Your task to perform on an android device: turn off notifications settings in the gmail app Image 0: 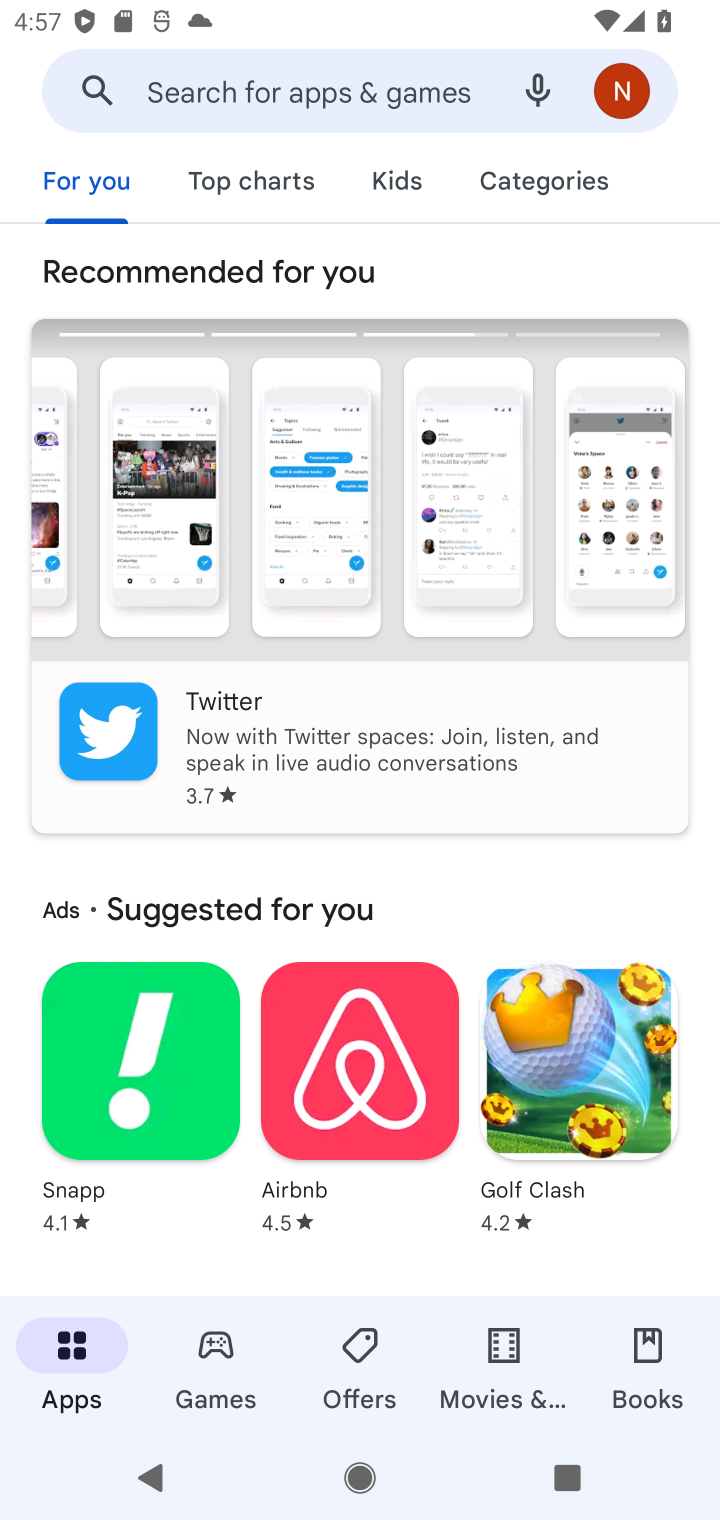
Step 0: press home button
Your task to perform on an android device: turn off notifications settings in the gmail app Image 1: 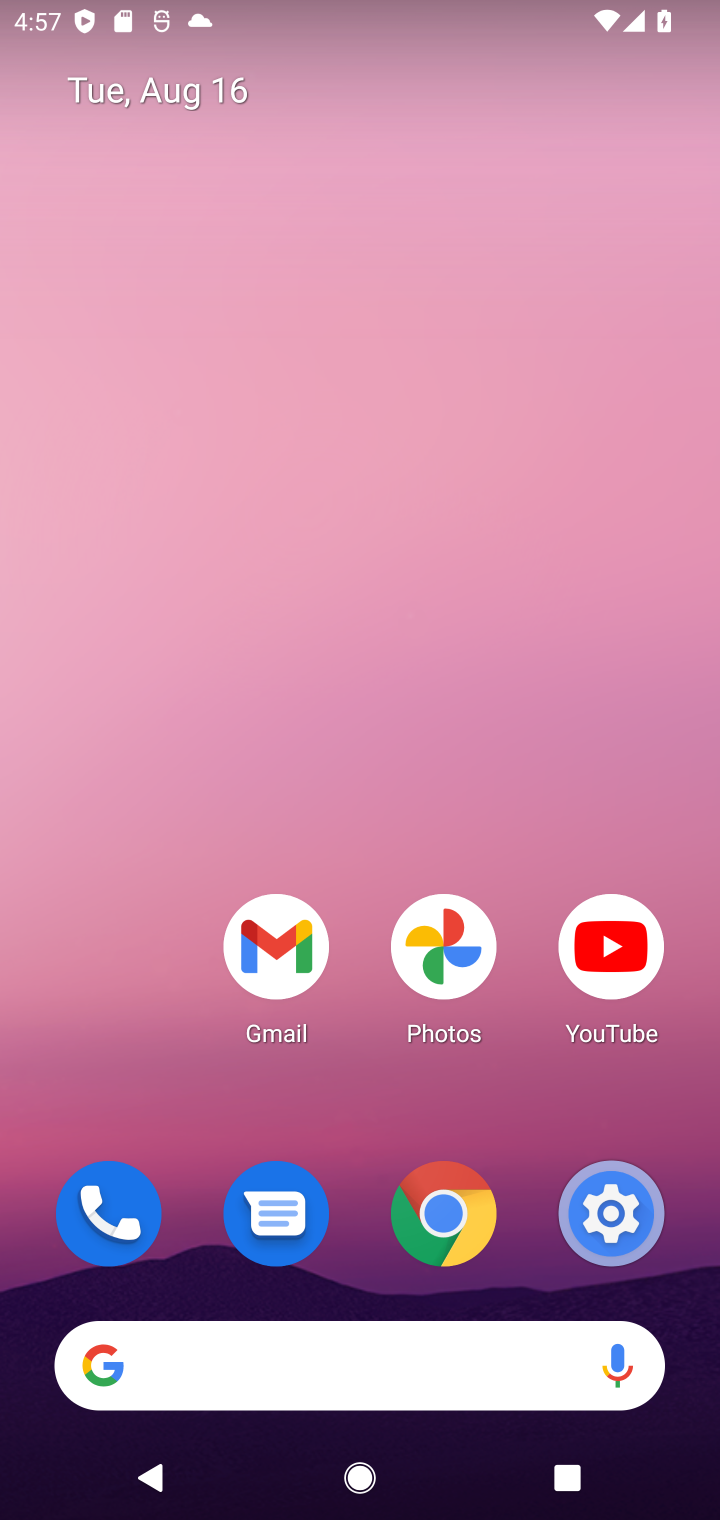
Step 1: drag from (378, 1077) to (383, 78)
Your task to perform on an android device: turn off notifications settings in the gmail app Image 2: 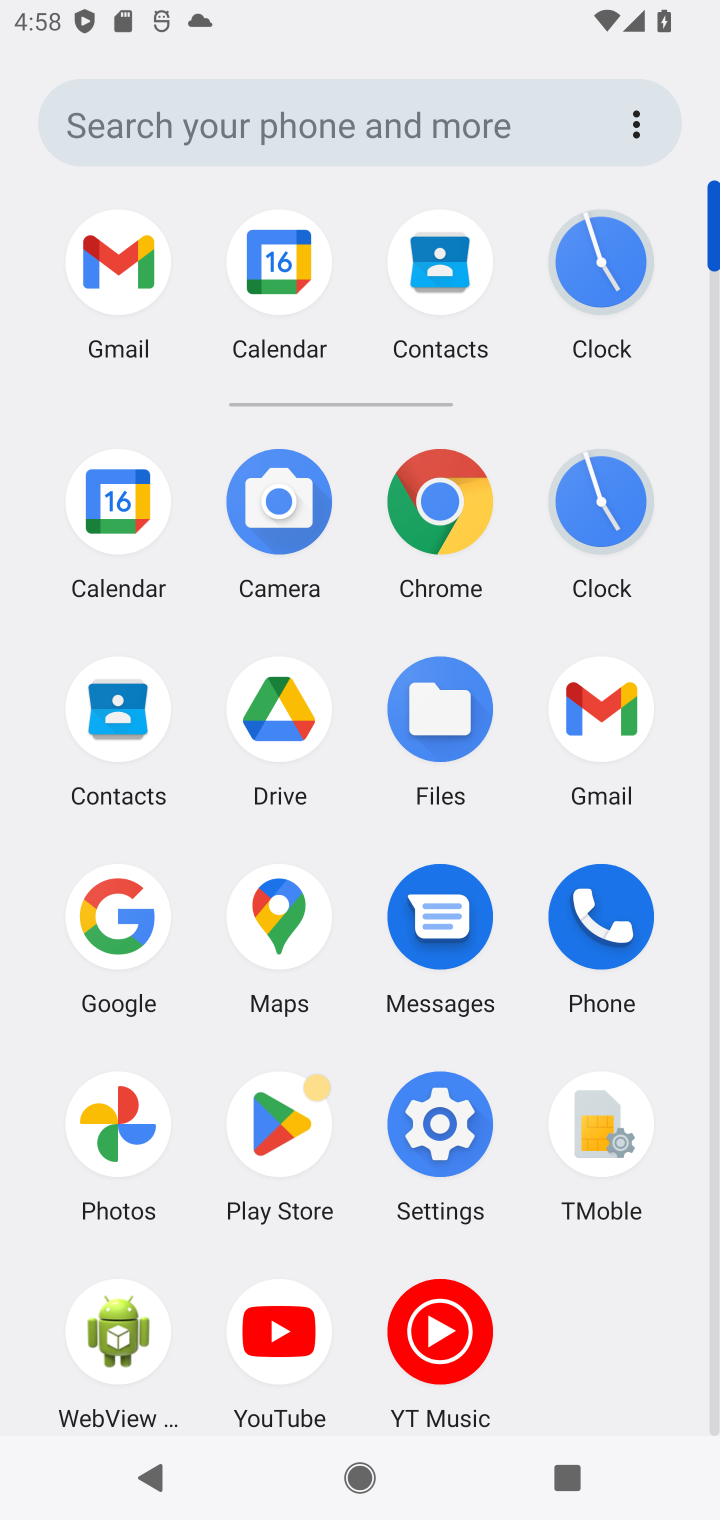
Step 2: click (108, 265)
Your task to perform on an android device: turn off notifications settings in the gmail app Image 3: 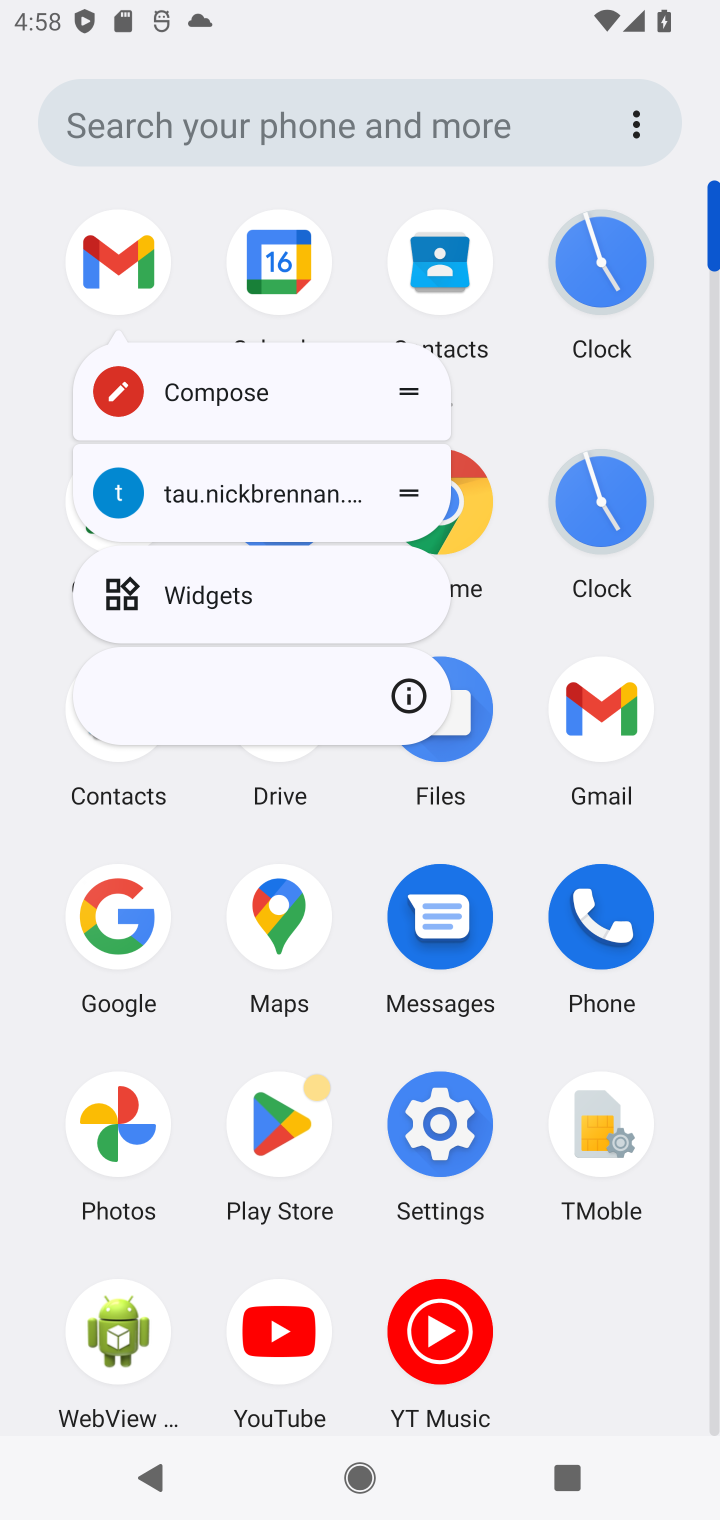
Step 3: click (609, 685)
Your task to perform on an android device: turn off notifications settings in the gmail app Image 4: 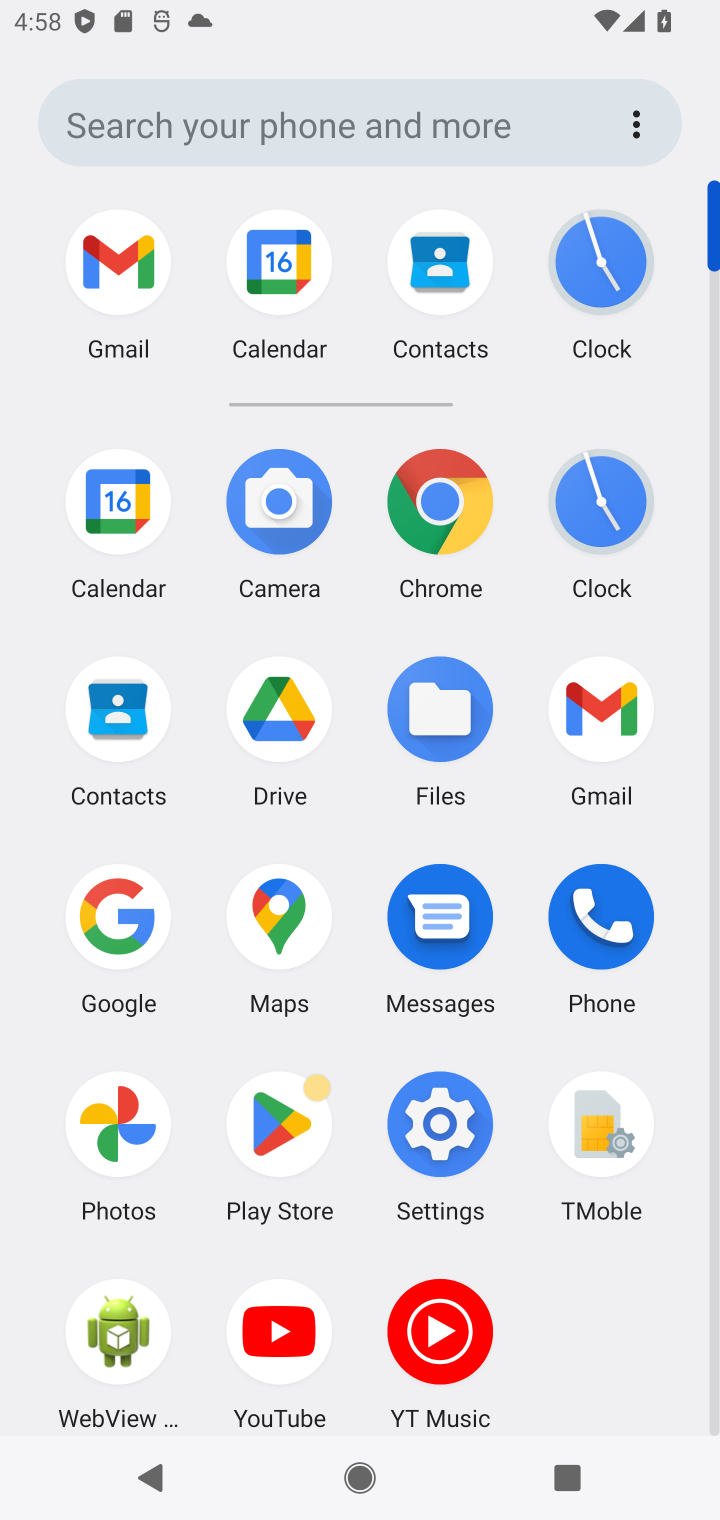
Step 4: click (605, 696)
Your task to perform on an android device: turn off notifications settings in the gmail app Image 5: 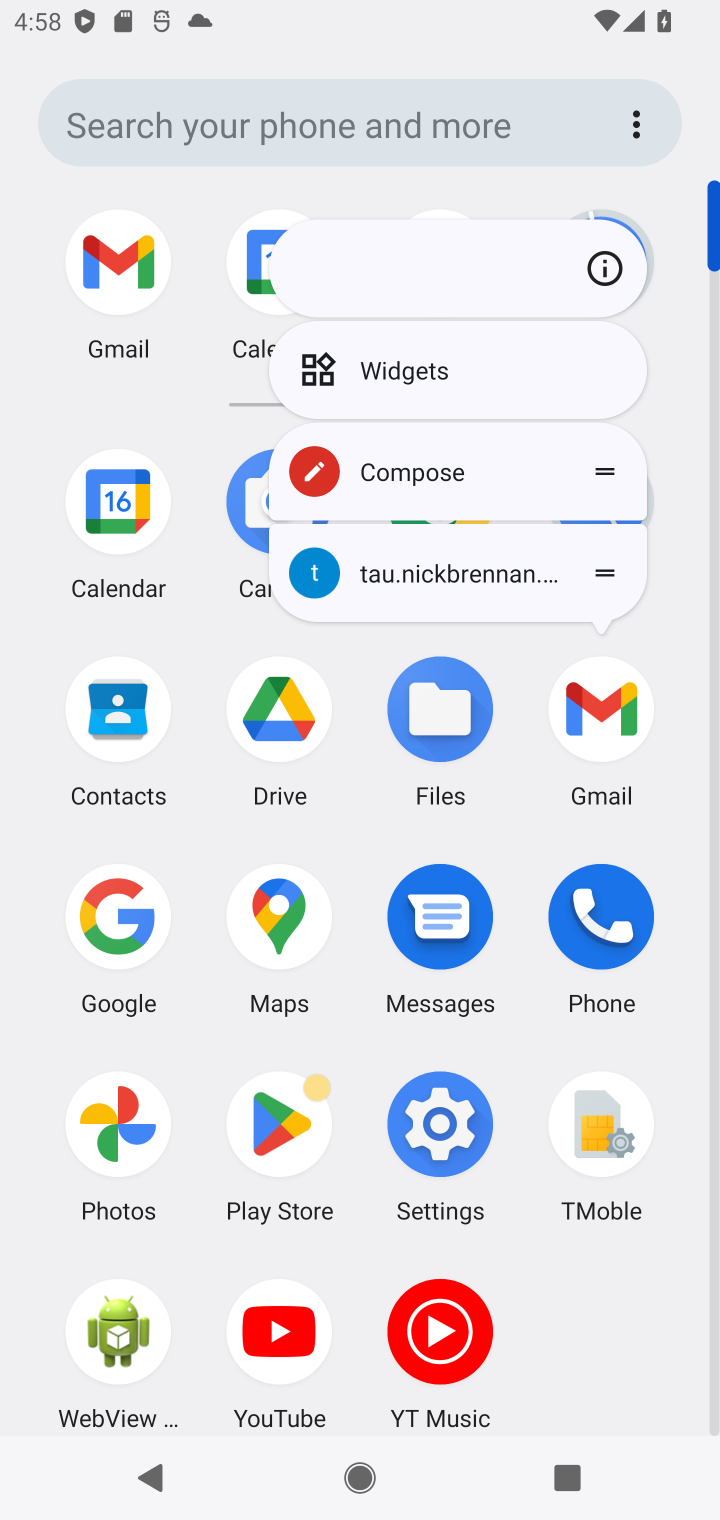
Step 5: click (601, 710)
Your task to perform on an android device: turn off notifications settings in the gmail app Image 6: 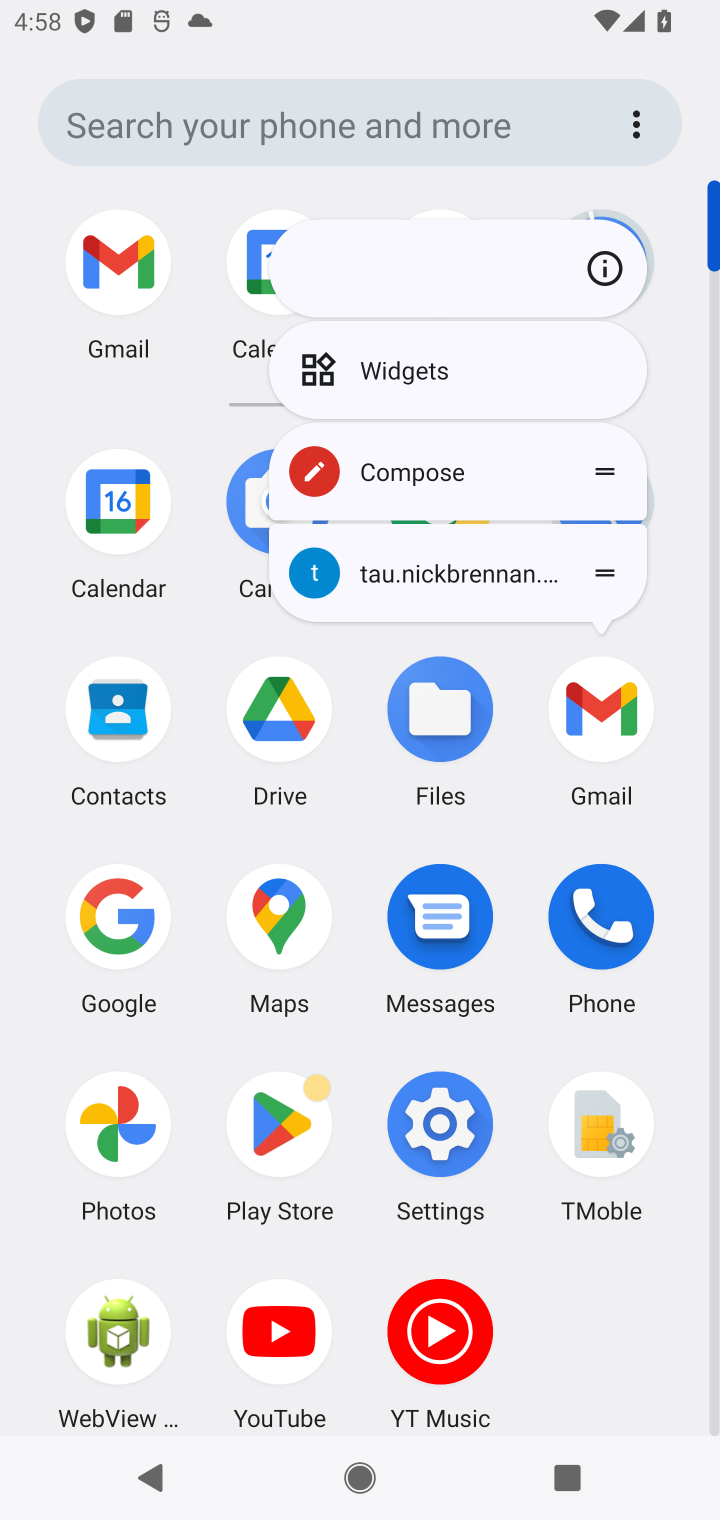
Step 6: click (603, 710)
Your task to perform on an android device: turn off notifications settings in the gmail app Image 7: 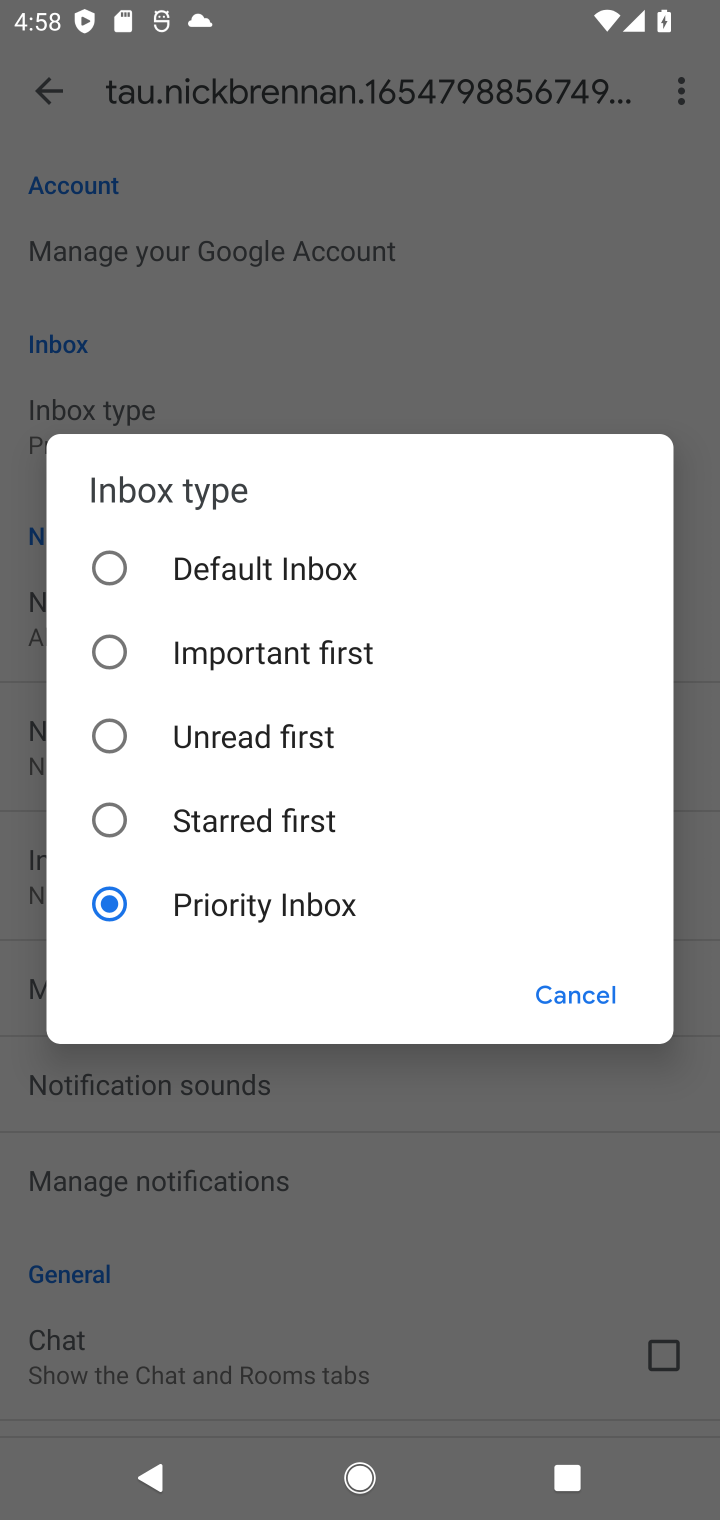
Step 7: click (584, 995)
Your task to perform on an android device: turn off notifications settings in the gmail app Image 8: 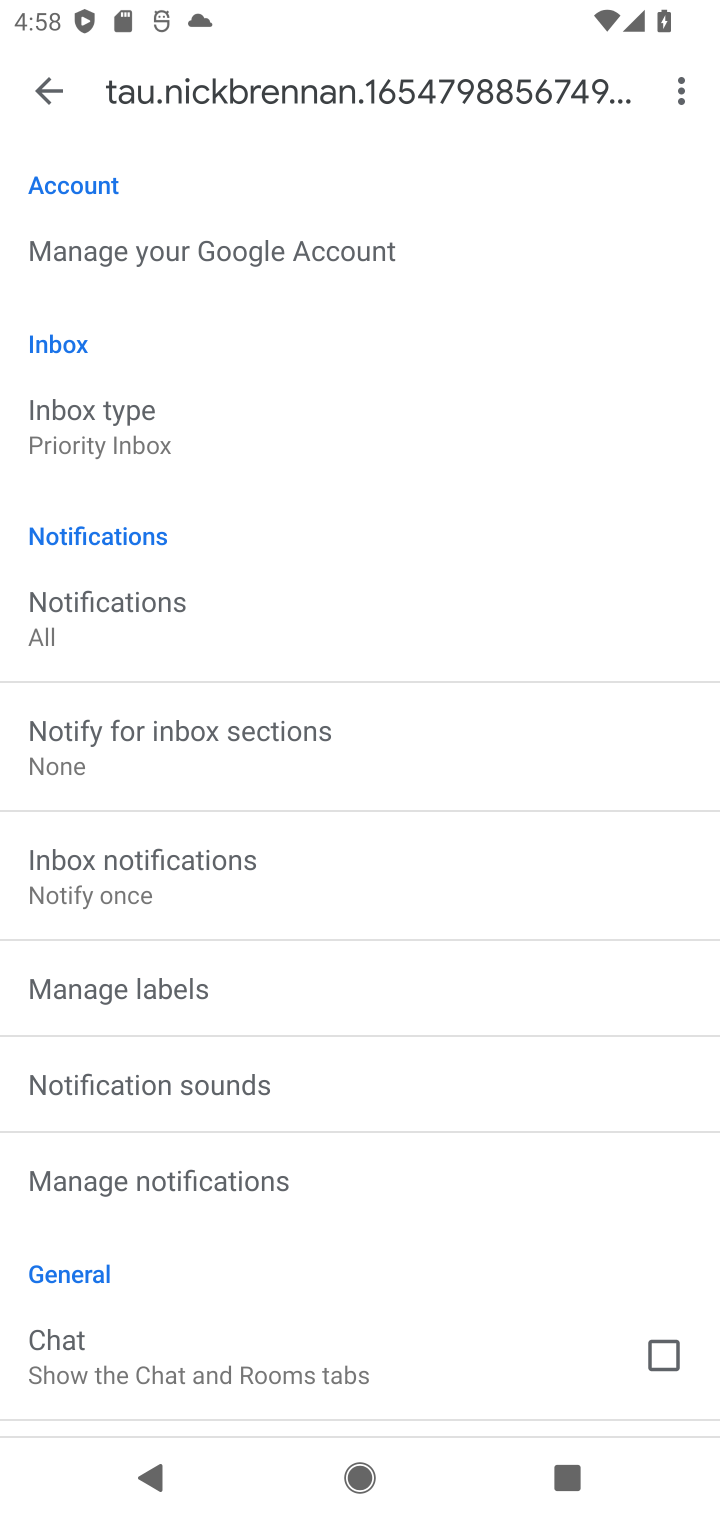
Step 8: click (143, 1184)
Your task to perform on an android device: turn off notifications settings in the gmail app Image 9: 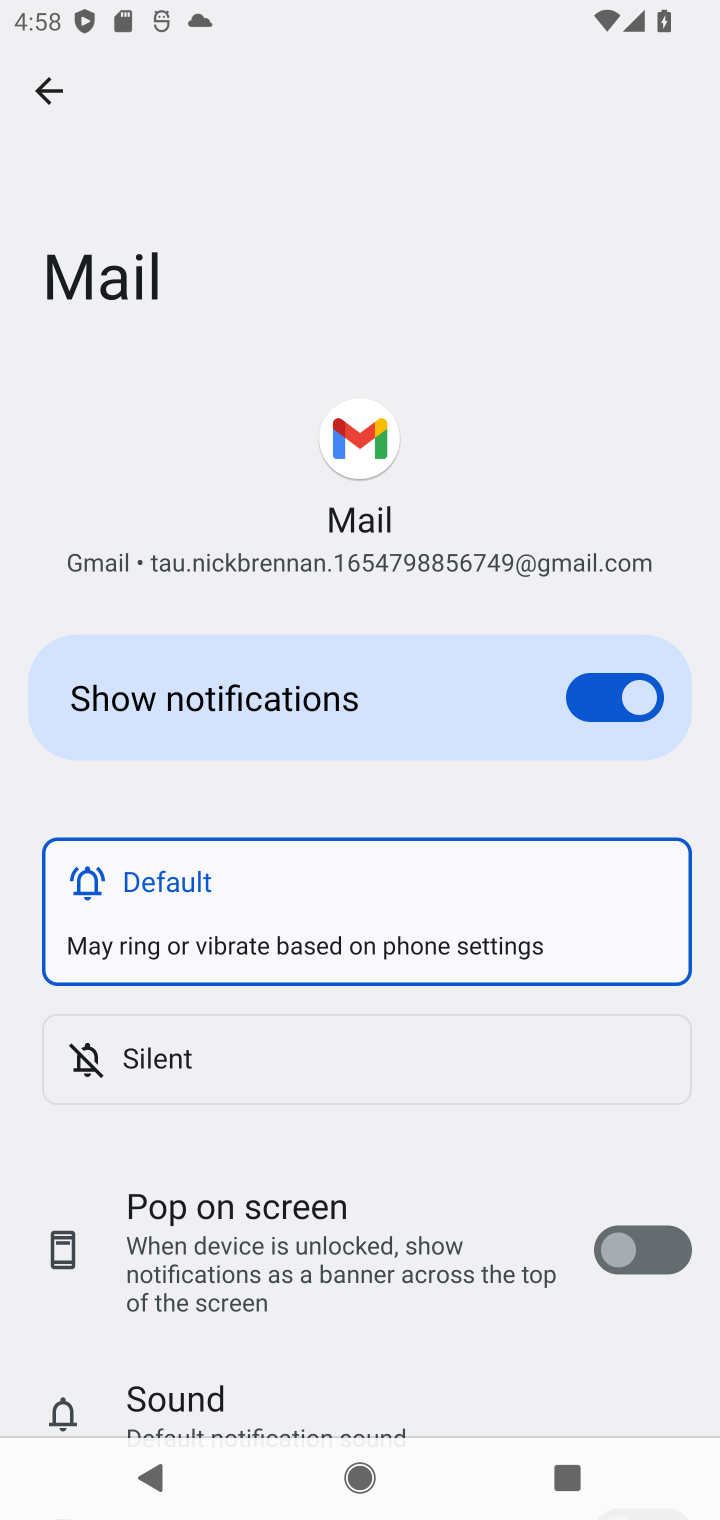
Step 9: click (596, 703)
Your task to perform on an android device: turn off notifications settings in the gmail app Image 10: 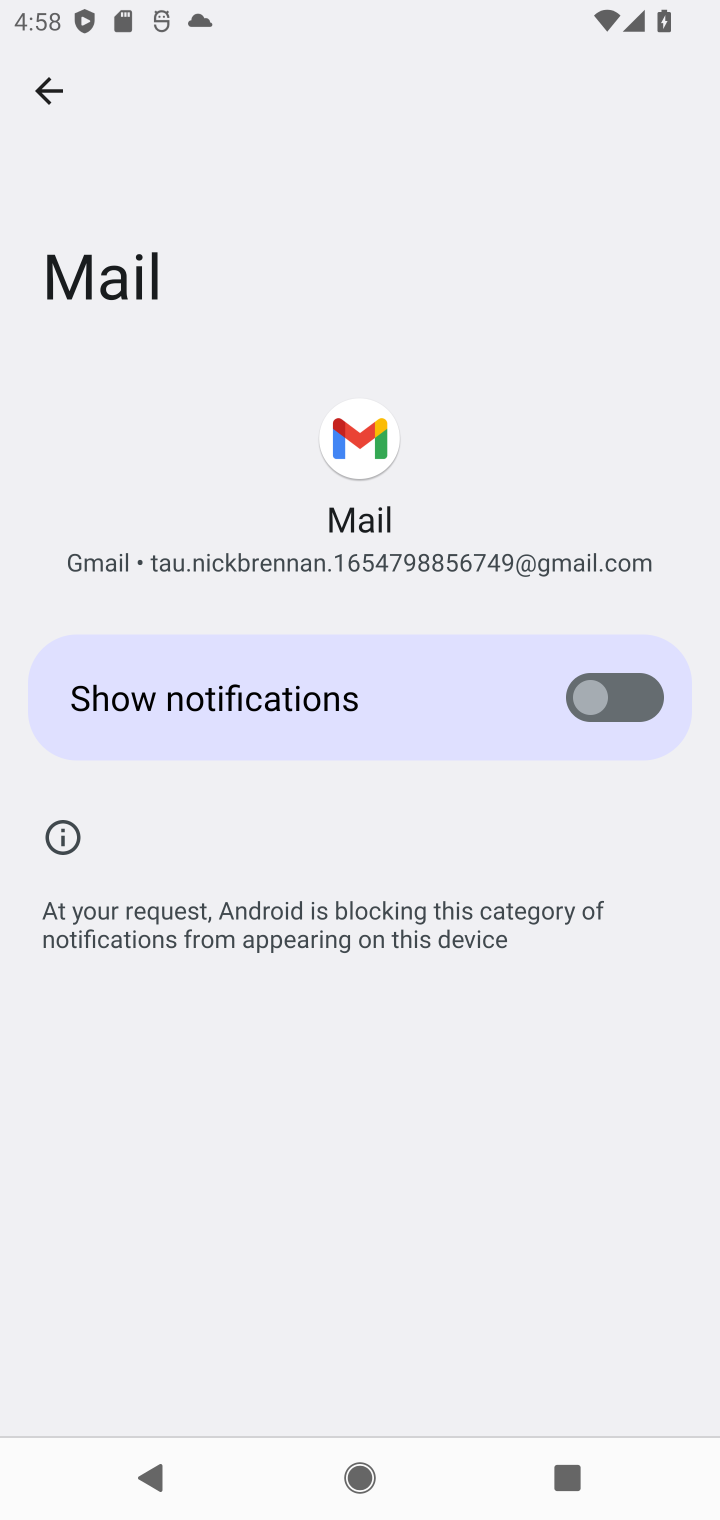
Step 10: task complete